Your task to perform on an android device: Open Chrome and go to settings Image 0: 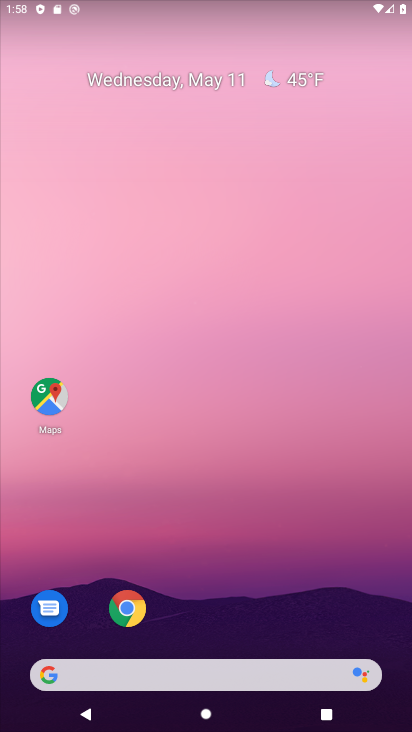
Step 0: click (130, 609)
Your task to perform on an android device: Open Chrome and go to settings Image 1: 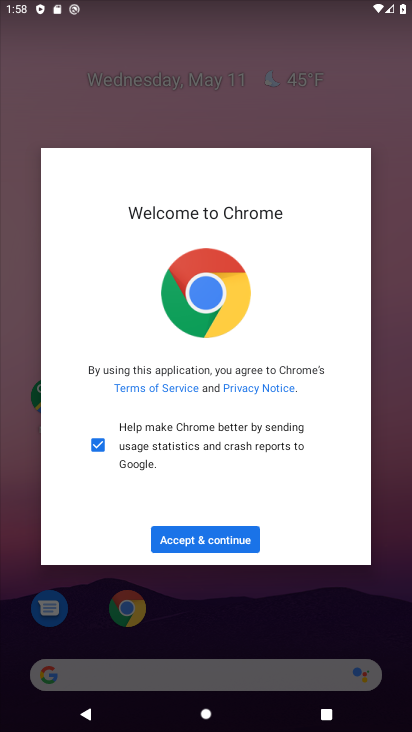
Step 1: click (222, 532)
Your task to perform on an android device: Open Chrome and go to settings Image 2: 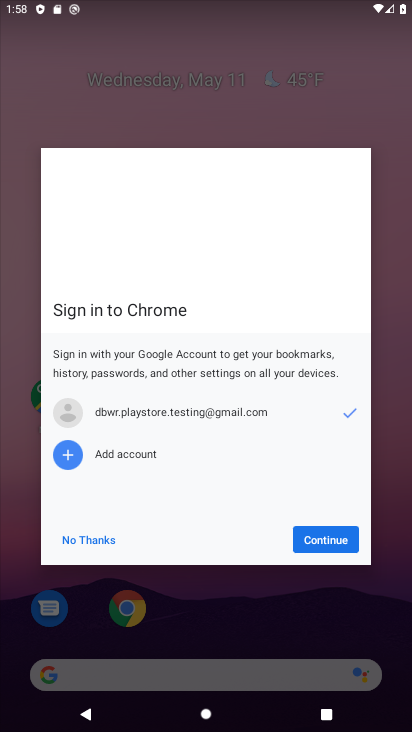
Step 2: click (335, 543)
Your task to perform on an android device: Open Chrome and go to settings Image 3: 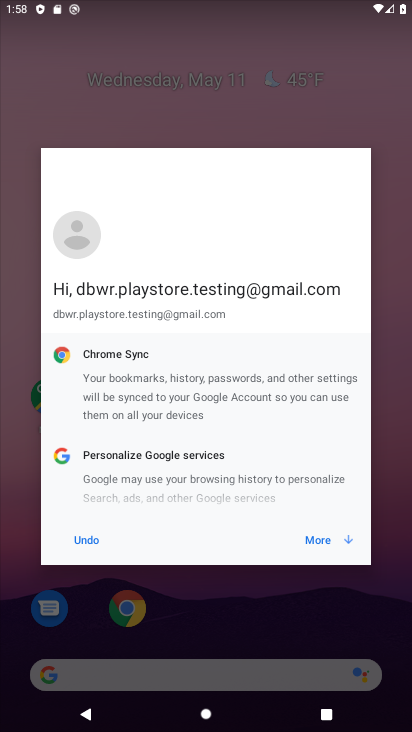
Step 3: click (335, 543)
Your task to perform on an android device: Open Chrome and go to settings Image 4: 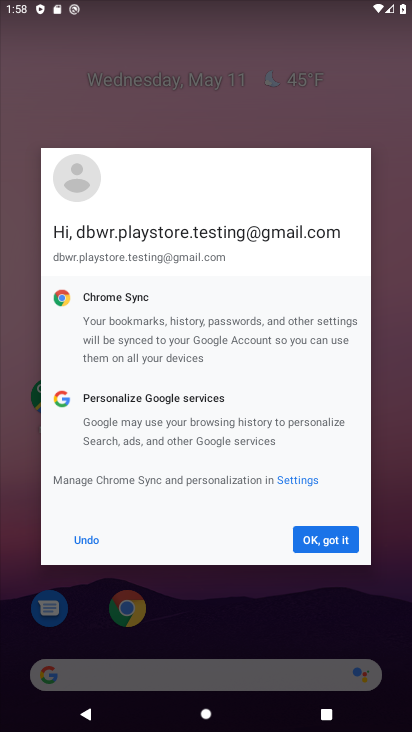
Step 4: click (335, 543)
Your task to perform on an android device: Open Chrome and go to settings Image 5: 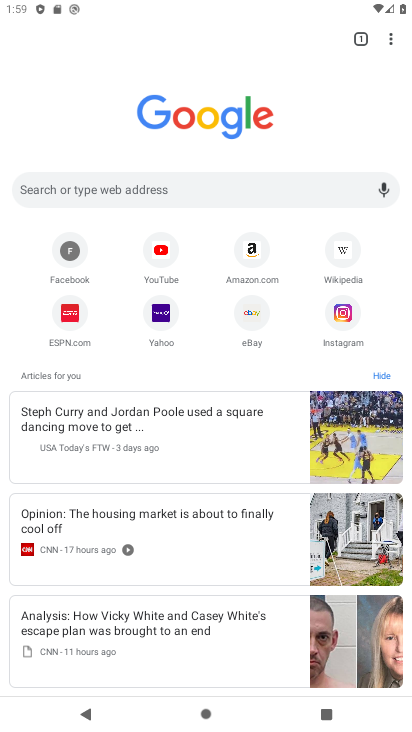
Step 5: task complete